Your task to perform on an android device: install app "ColorNote Notepad Notes" Image 0: 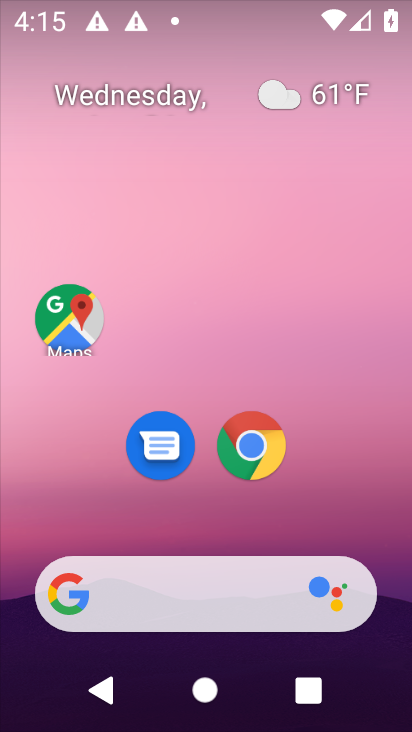
Step 0: drag from (185, 542) to (269, 35)
Your task to perform on an android device: install app "ColorNote Notepad Notes" Image 1: 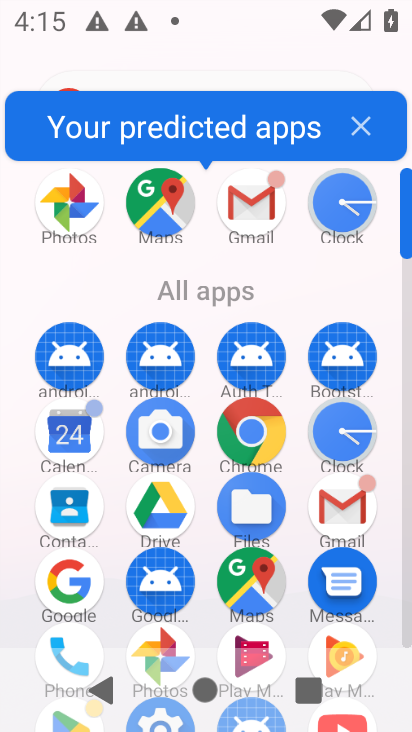
Step 1: drag from (175, 507) to (237, 24)
Your task to perform on an android device: install app "ColorNote Notepad Notes" Image 2: 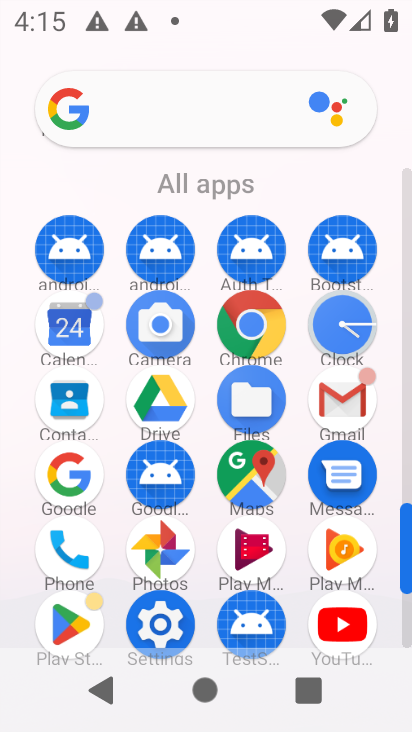
Step 2: click (63, 616)
Your task to perform on an android device: install app "ColorNote Notepad Notes" Image 3: 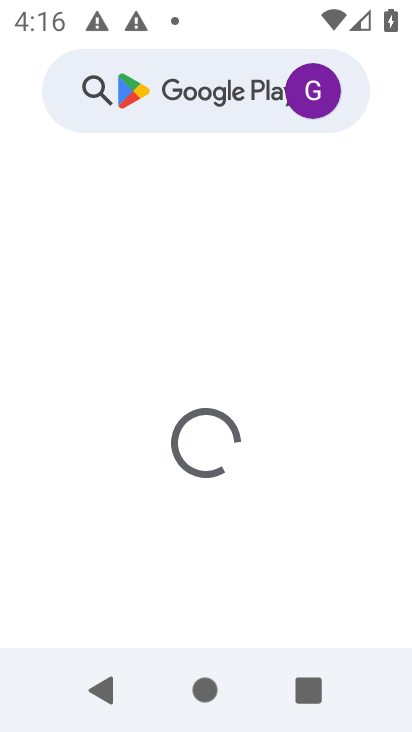
Step 3: click (197, 80)
Your task to perform on an android device: install app "ColorNote Notepad Notes" Image 4: 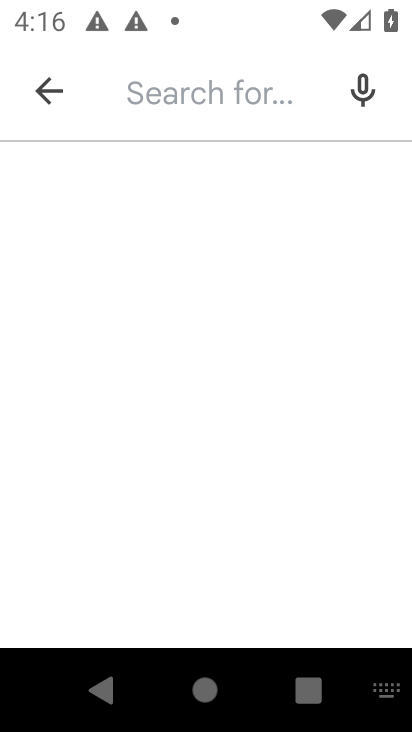
Step 4: type "colornote notepad notes"
Your task to perform on an android device: install app "ColorNote Notepad Notes" Image 5: 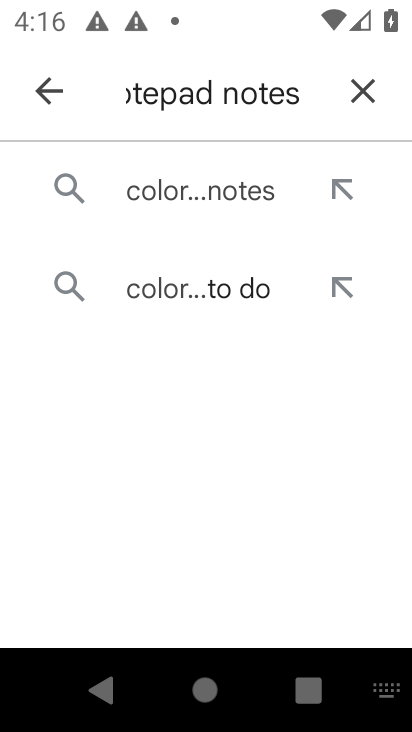
Step 5: click (228, 199)
Your task to perform on an android device: install app "ColorNote Notepad Notes" Image 6: 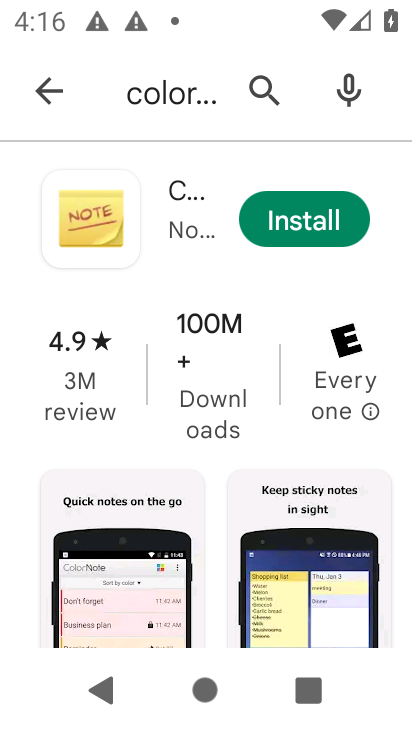
Step 6: click (303, 203)
Your task to perform on an android device: install app "ColorNote Notepad Notes" Image 7: 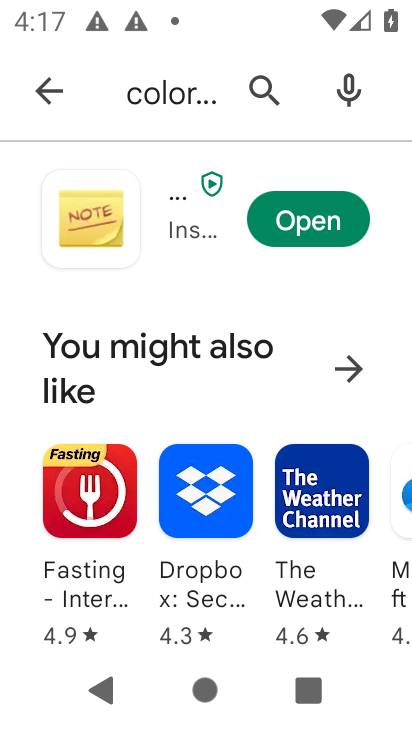
Step 7: task complete